Your task to perform on an android device: Open calendar and show me the first week of next month Image 0: 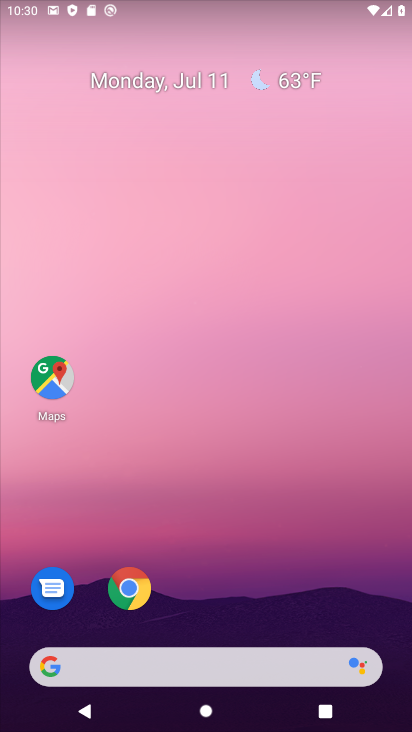
Step 0: drag from (242, 729) to (196, 157)
Your task to perform on an android device: Open calendar and show me the first week of next month Image 1: 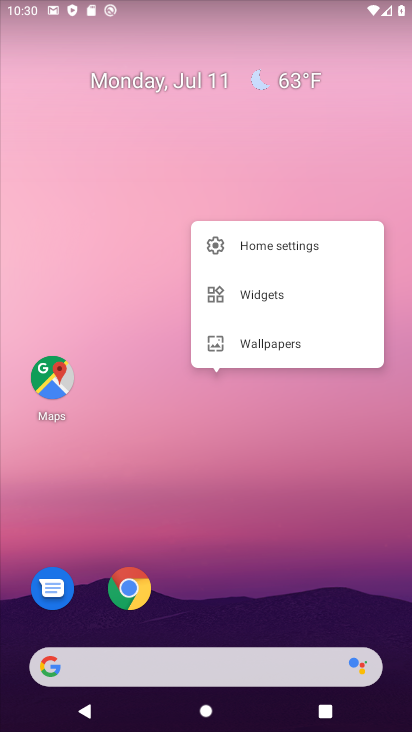
Step 1: click (287, 548)
Your task to perform on an android device: Open calendar and show me the first week of next month Image 2: 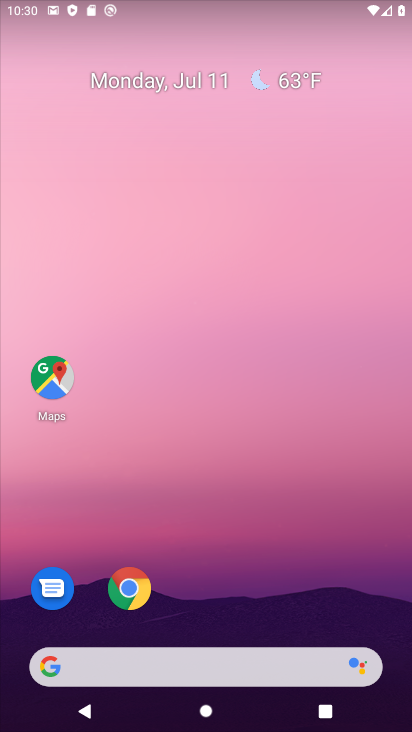
Step 2: drag from (233, 518) to (232, 106)
Your task to perform on an android device: Open calendar and show me the first week of next month Image 3: 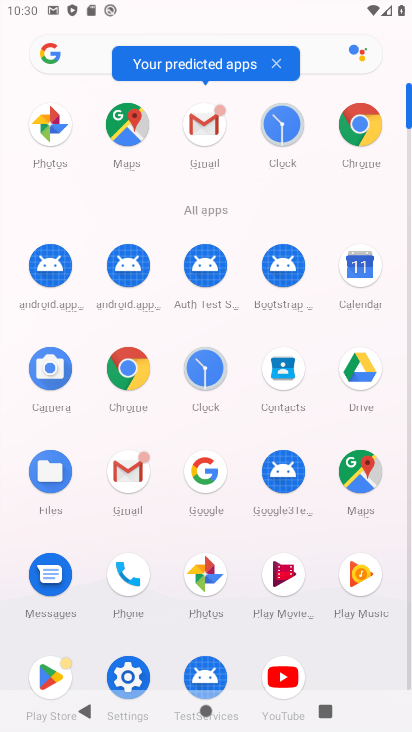
Step 3: click (355, 266)
Your task to perform on an android device: Open calendar and show me the first week of next month Image 4: 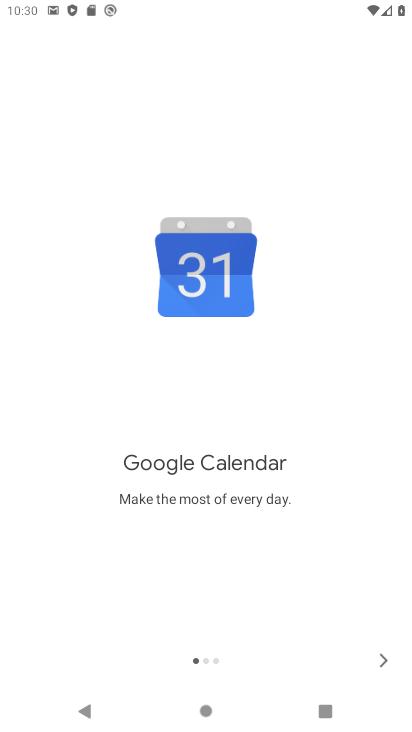
Step 4: click (379, 659)
Your task to perform on an android device: Open calendar and show me the first week of next month Image 5: 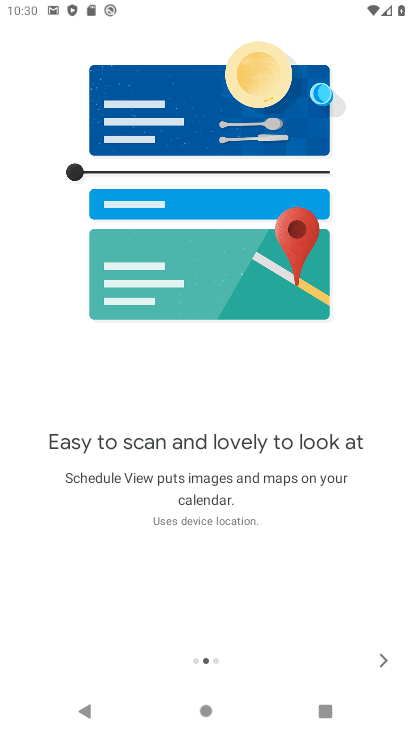
Step 5: click (378, 659)
Your task to perform on an android device: Open calendar and show me the first week of next month Image 6: 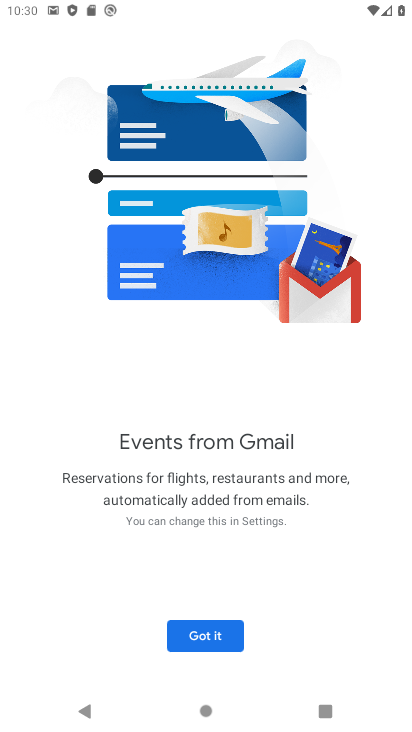
Step 6: click (390, 654)
Your task to perform on an android device: Open calendar and show me the first week of next month Image 7: 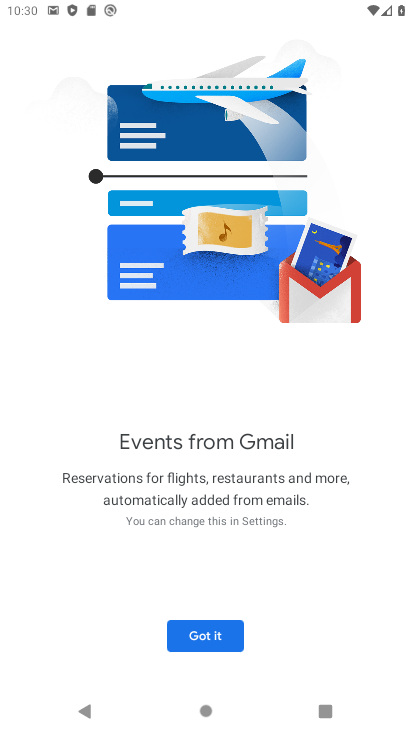
Step 7: click (192, 631)
Your task to perform on an android device: Open calendar and show me the first week of next month Image 8: 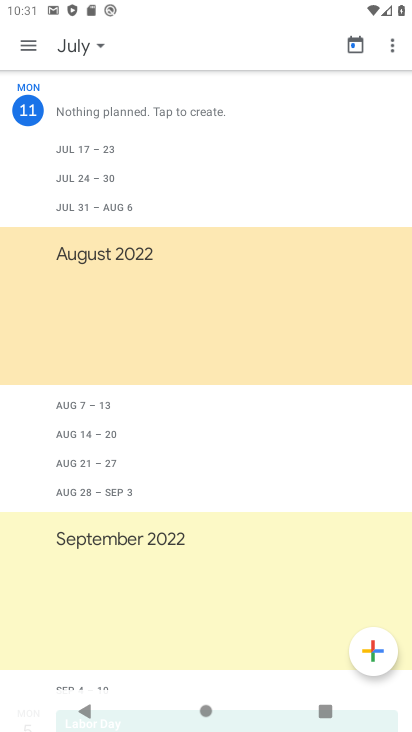
Step 8: click (103, 38)
Your task to perform on an android device: Open calendar and show me the first week of next month Image 9: 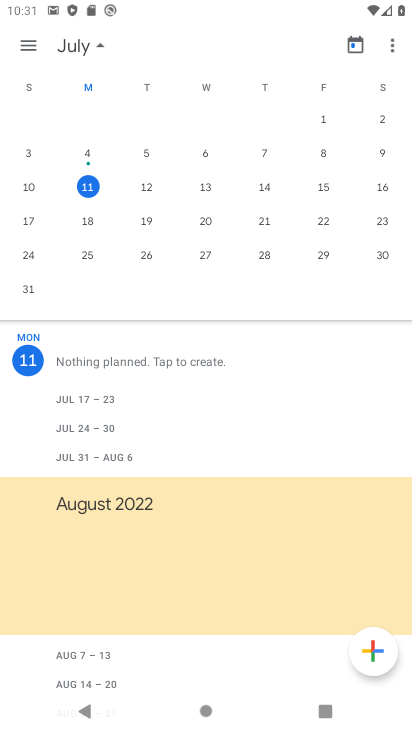
Step 9: drag from (290, 204) to (48, 217)
Your task to perform on an android device: Open calendar and show me the first week of next month Image 10: 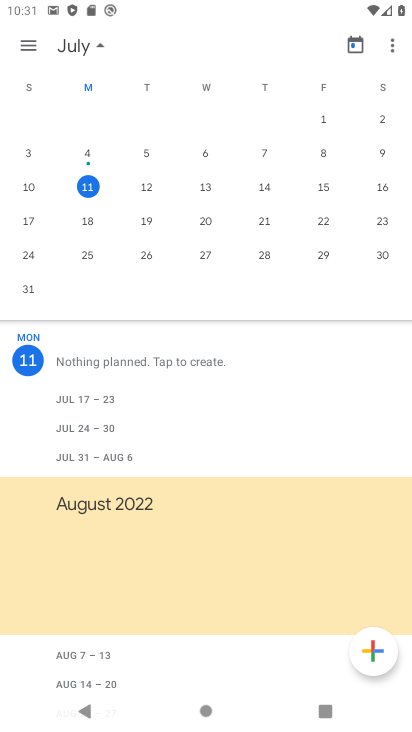
Step 10: drag from (387, 209) to (49, 212)
Your task to perform on an android device: Open calendar and show me the first week of next month Image 11: 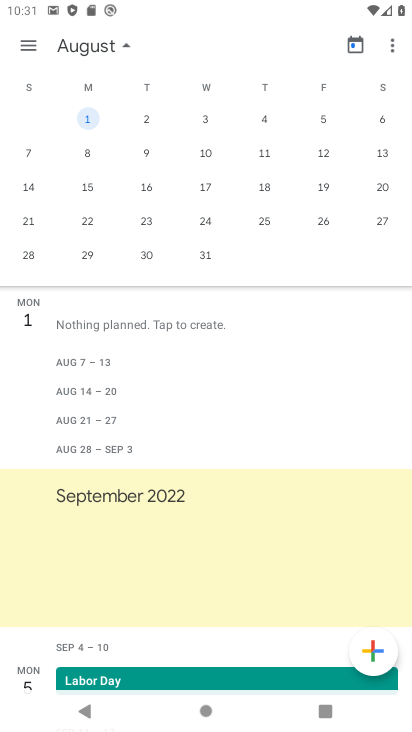
Step 11: click (91, 120)
Your task to perform on an android device: Open calendar and show me the first week of next month Image 12: 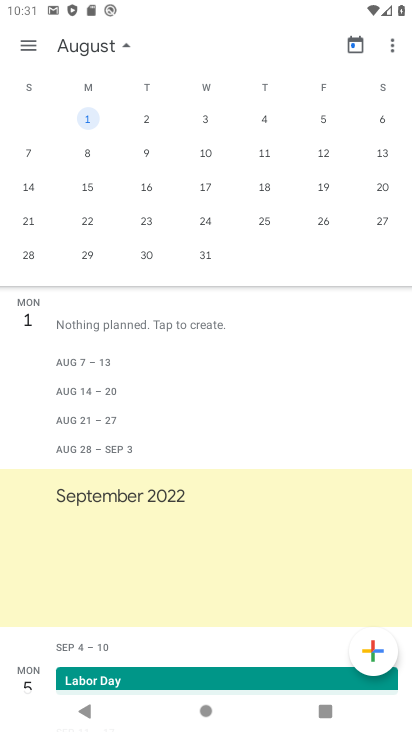
Step 12: click (30, 53)
Your task to perform on an android device: Open calendar and show me the first week of next month Image 13: 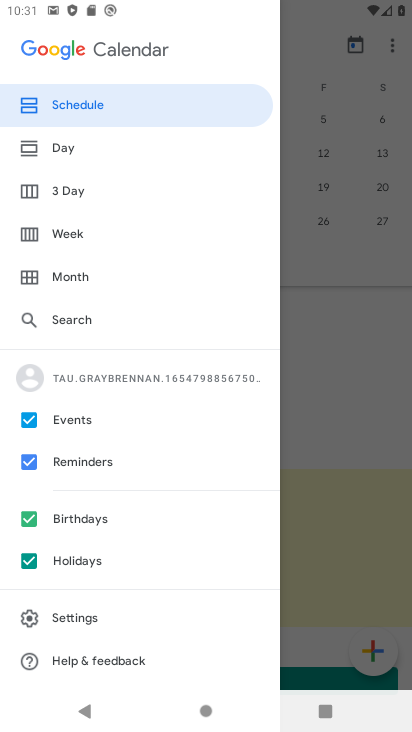
Step 13: click (69, 233)
Your task to perform on an android device: Open calendar and show me the first week of next month Image 14: 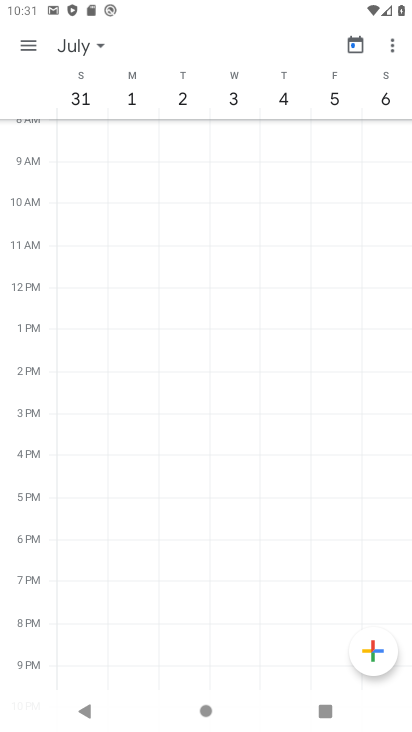
Step 14: task complete